Your task to perform on an android device: Turn off the flashlight Image 0: 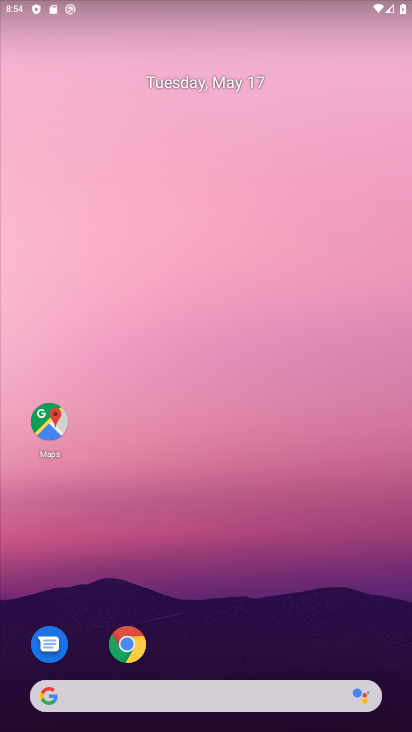
Step 0: click (124, 637)
Your task to perform on an android device: Turn off the flashlight Image 1: 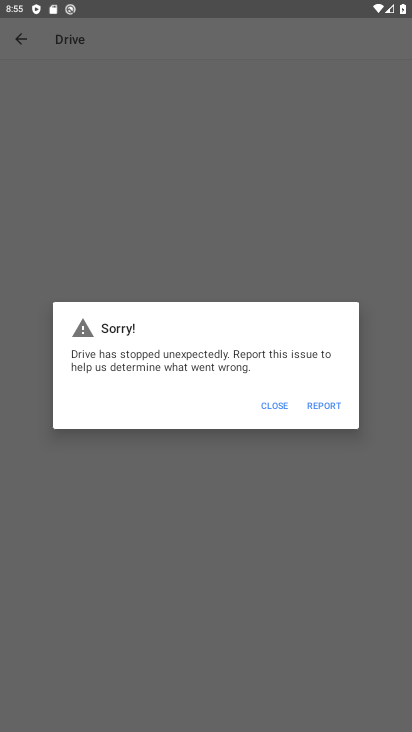
Step 1: press home button
Your task to perform on an android device: Turn off the flashlight Image 2: 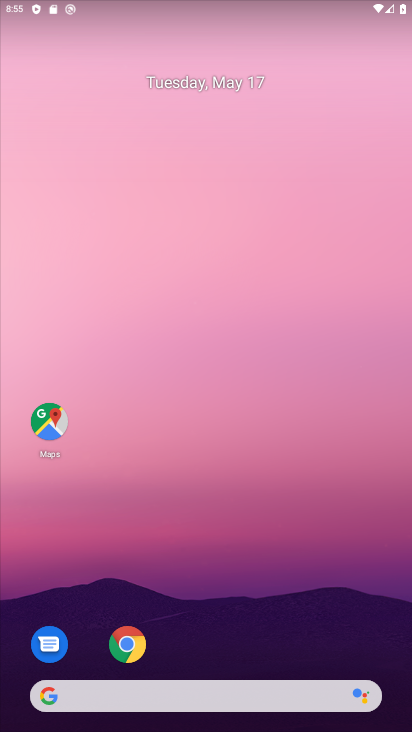
Step 2: drag from (211, 662) to (255, 148)
Your task to perform on an android device: Turn off the flashlight Image 3: 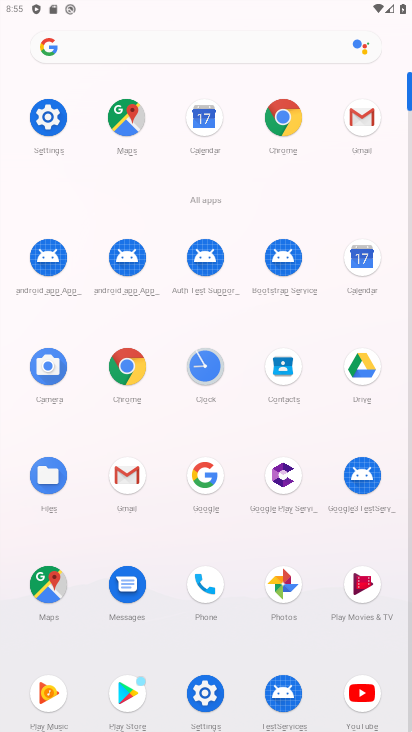
Step 3: click (43, 109)
Your task to perform on an android device: Turn off the flashlight Image 4: 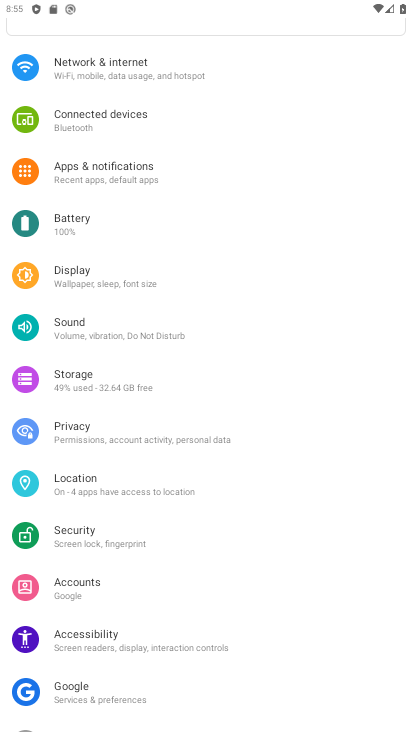
Step 4: drag from (190, 134) to (195, 578)
Your task to perform on an android device: Turn off the flashlight Image 5: 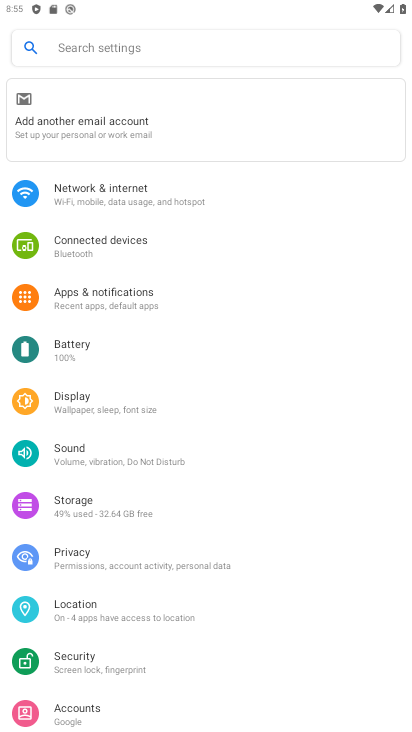
Step 5: click (142, 43)
Your task to perform on an android device: Turn off the flashlight Image 6: 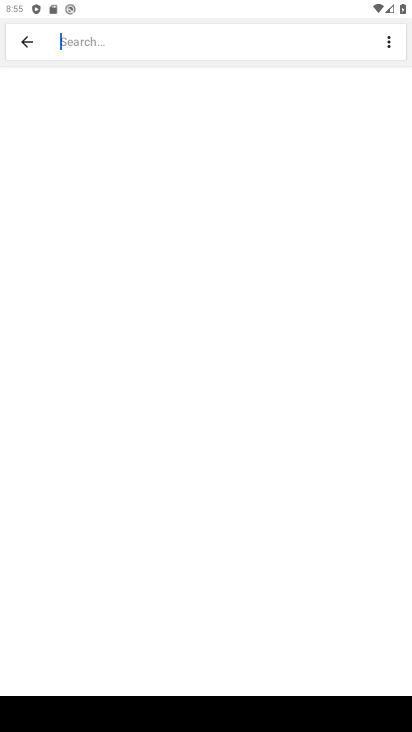
Step 6: type "flashlight"
Your task to perform on an android device: Turn off the flashlight Image 7: 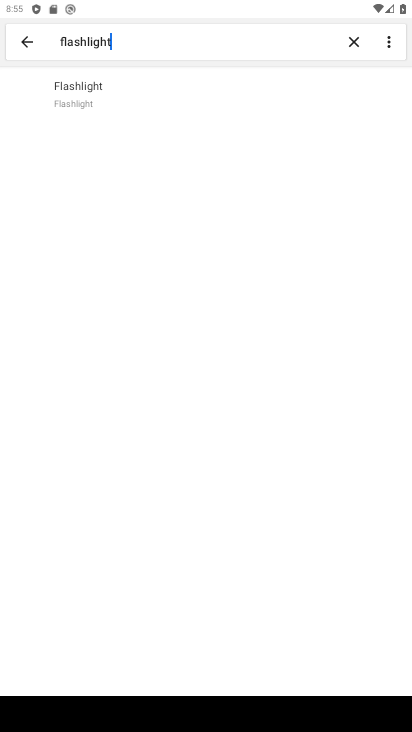
Step 7: click (109, 92)
Your task to perform on an android device: Turn off the flashlight Image 8: 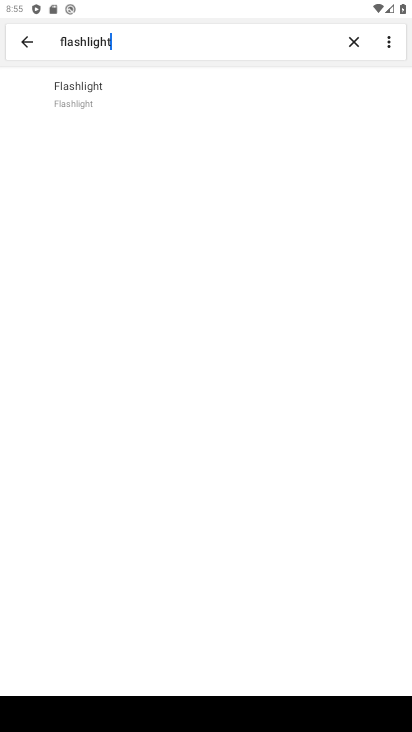
Step 8: task complete